Your task to perform on an android device: change keyboard looks Image 0: 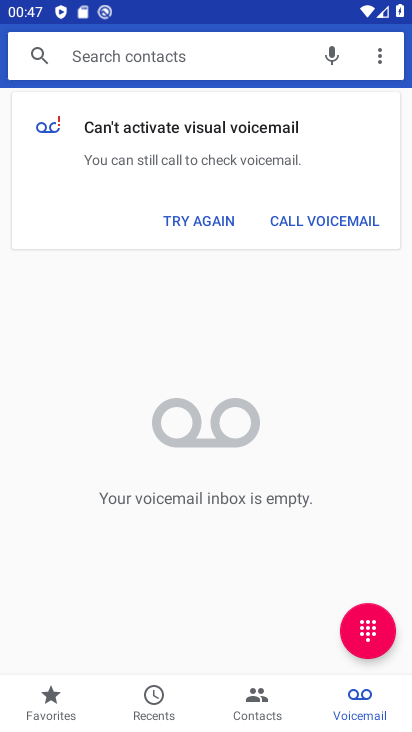
Step 0: press home button
Your task to perform on an android device: change keyboard looks Image 1: 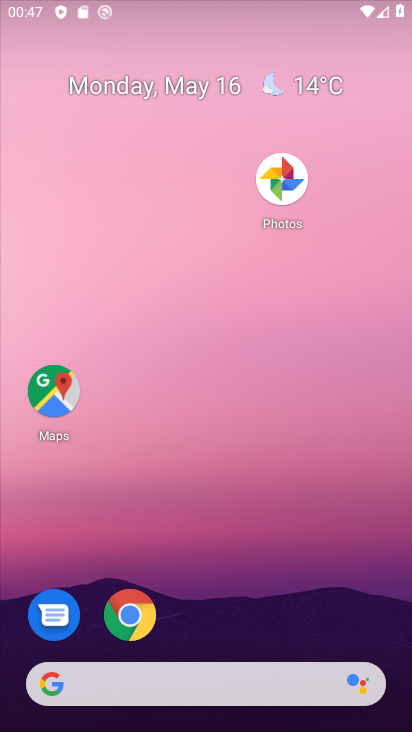
Step 1: drag from (384, 602) to (339, 120)
Your task to perform on an android device: change keyboard looks Image 2: 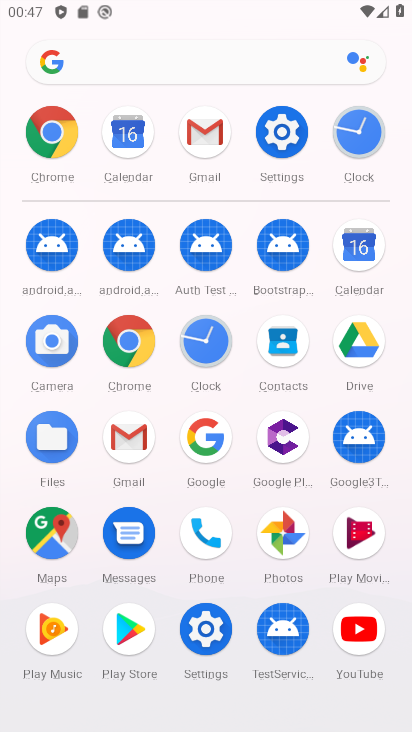
Step 2: click (210, 641)
Your task to perform on an android device: change keyboard looks Image 3: 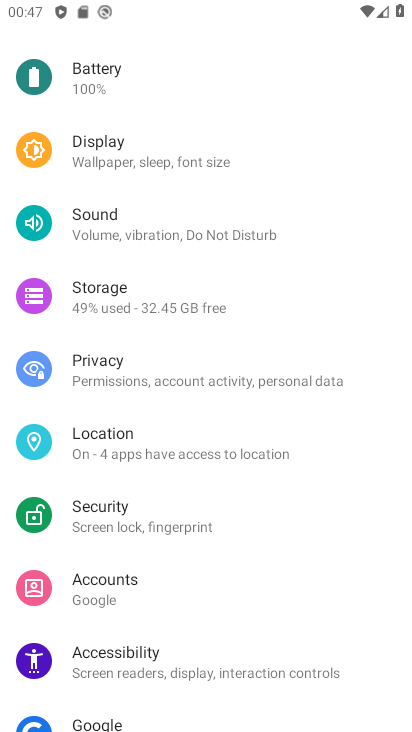
Step 3: drag from (221, 643) to (275, 171)
Your task to perform on an android device: change keyboard looks Image 4: 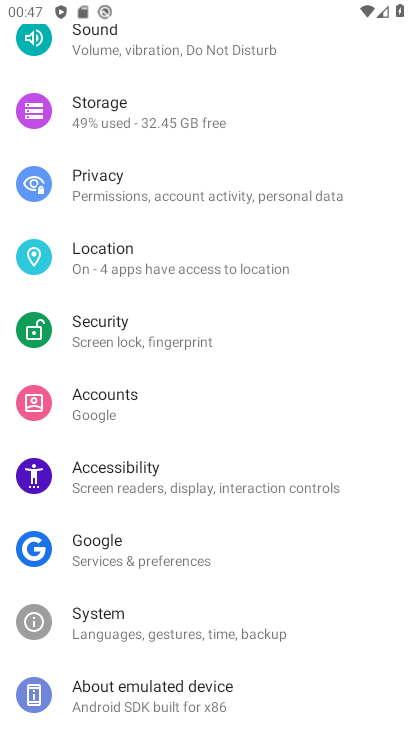
Step 4: click (223, 636)
Your task to perform on an android device: change keyboard looks Image 5: 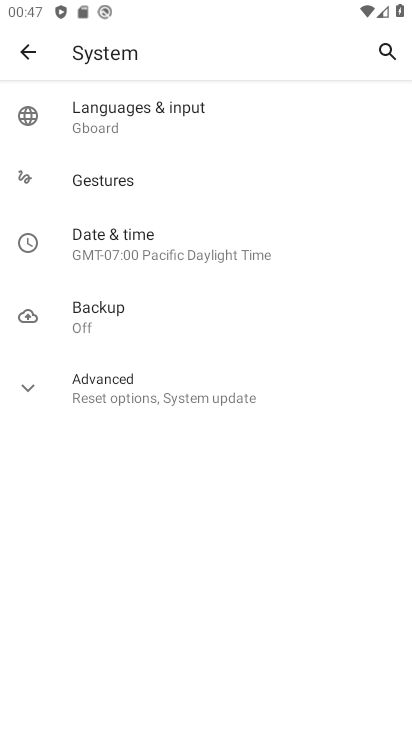
Step 5: click (122, 123)
Your task to perform on an android device: change keyboard looks Image 6: 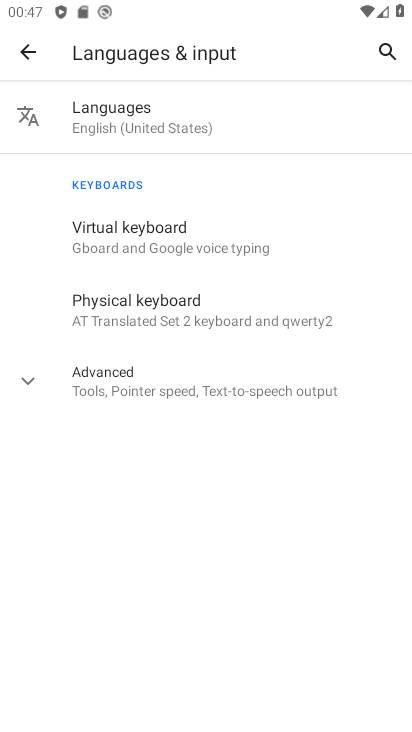
Step 6: click (173, 241)
Your task to perform on an android device: change keyboard looks Image 7: 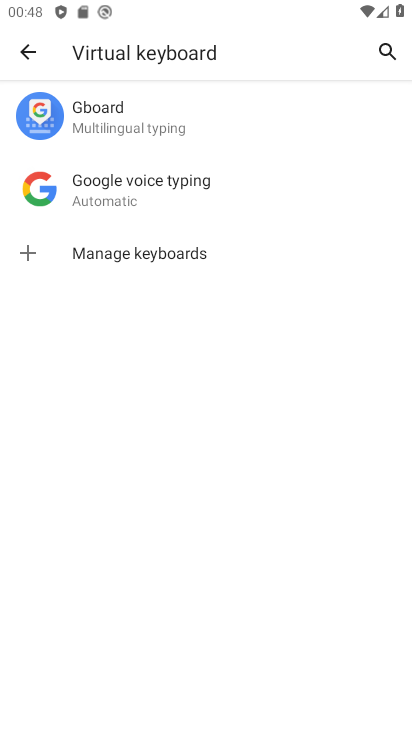
Step 7: click (130, 133)
Your task to perform on an android device: change keyboard looks Image 8: 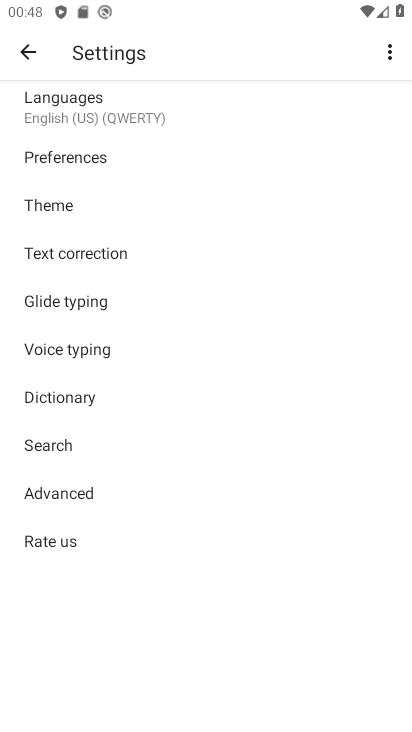
Step 8: click (84, 211)
Your task to perform on an android device: change keyboard looks Image 9: 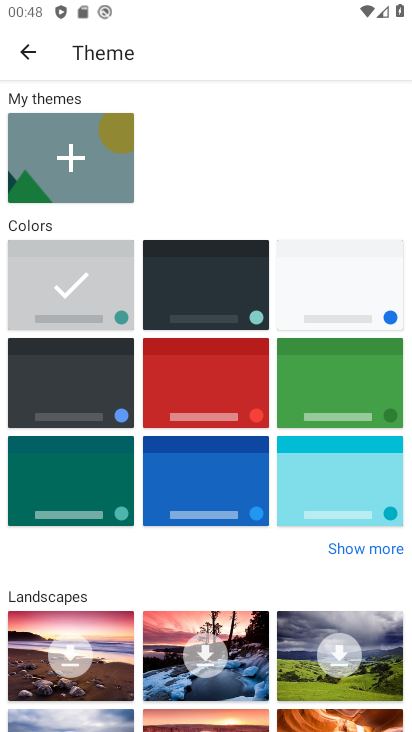
Step 9: click (327, 477)
Your task to perform on an android device: change keyboard looks Image 10: 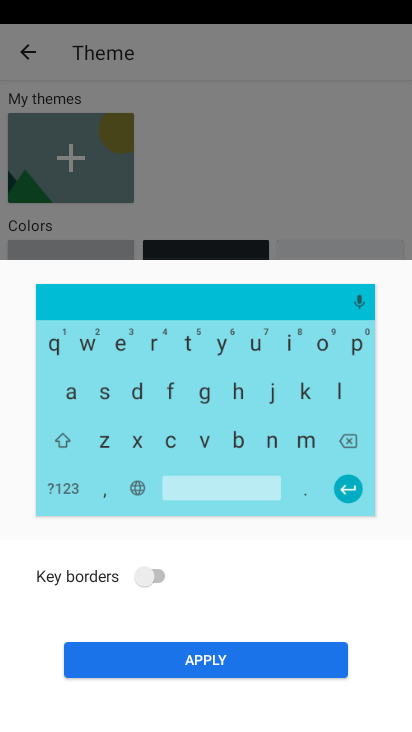
Step 10: click (235, 651)
Your task to perform on an android device: change keyboard looks Image 11: 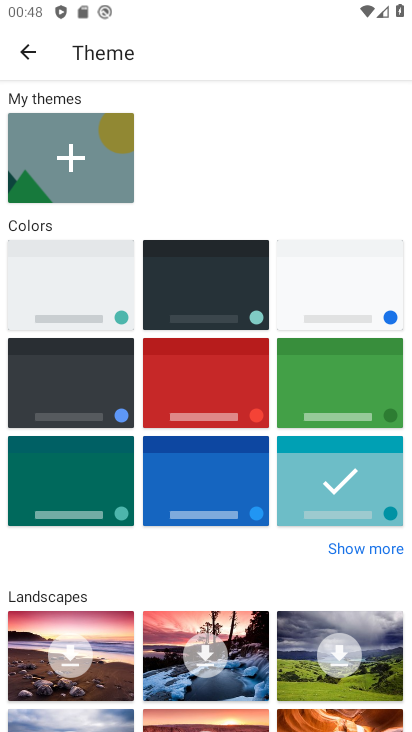
Step 11: task complete